Your task to perform on an android device: What's the latest video from GameSpot News? Image 0: 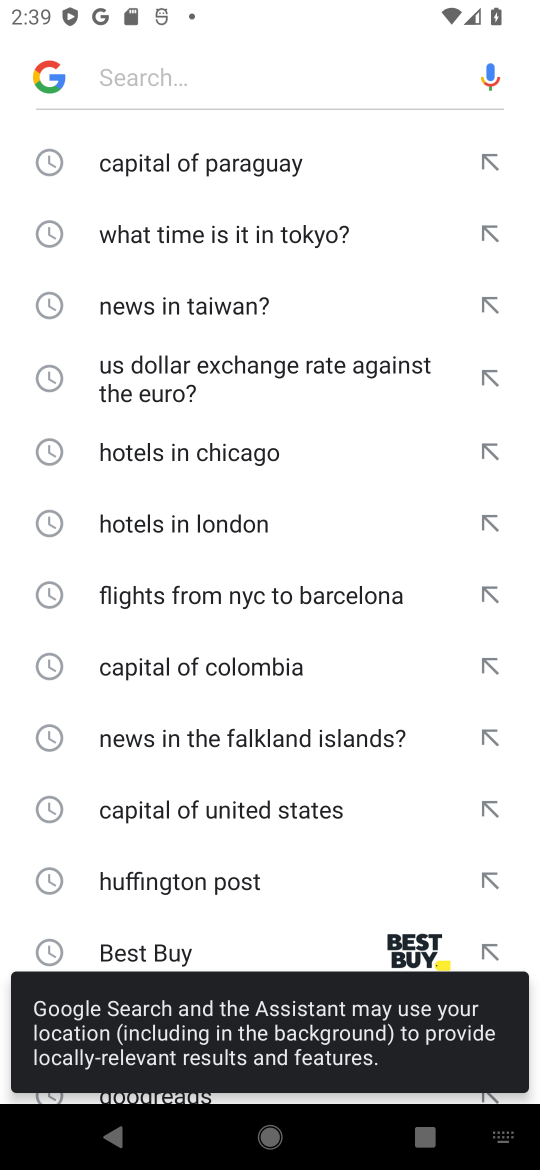
Step 0: press home button
Your task to perform on an android device: What's the latest video from GameSpot News? Image 1: 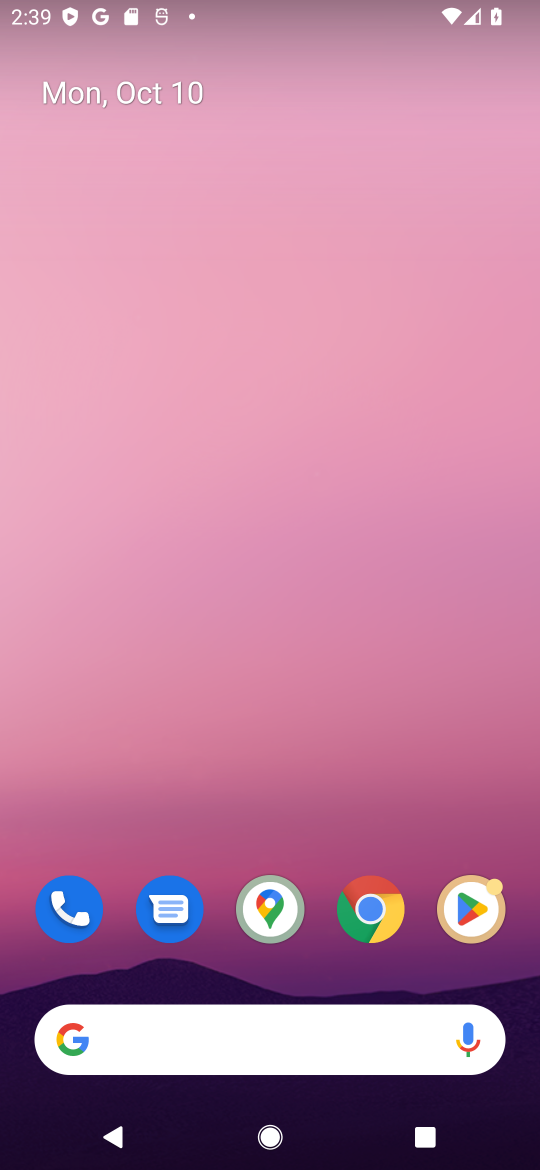
Step 1: click (370, 909)
Your task to perform on an android device: What's the latest video from GameSpot News? Image 2: 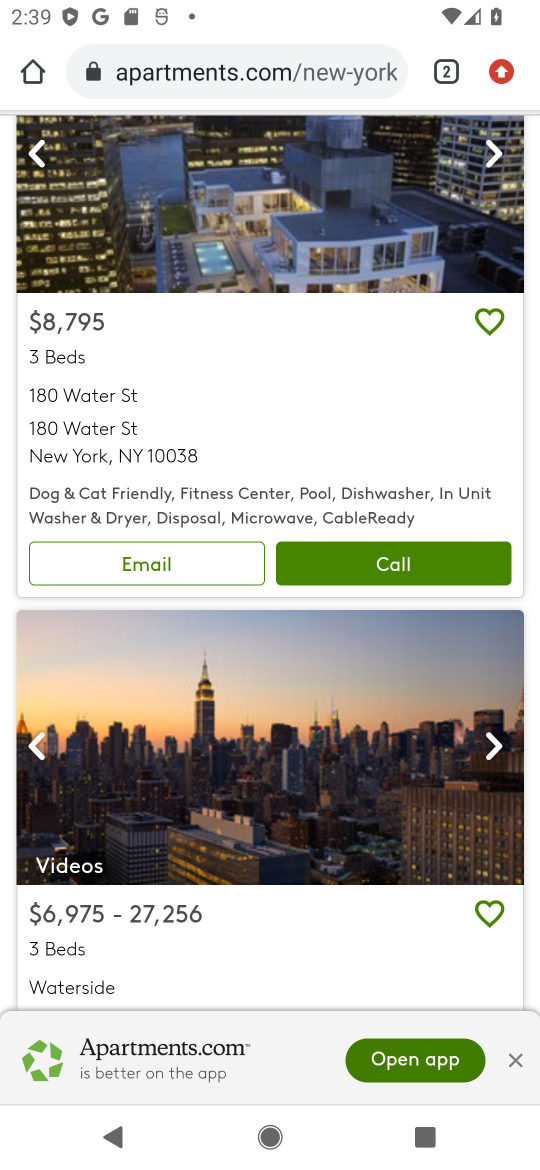
Step 2: click (251, 51)
Your task to perform on an android device: What's the latest video from GameSpot News? Image 3: 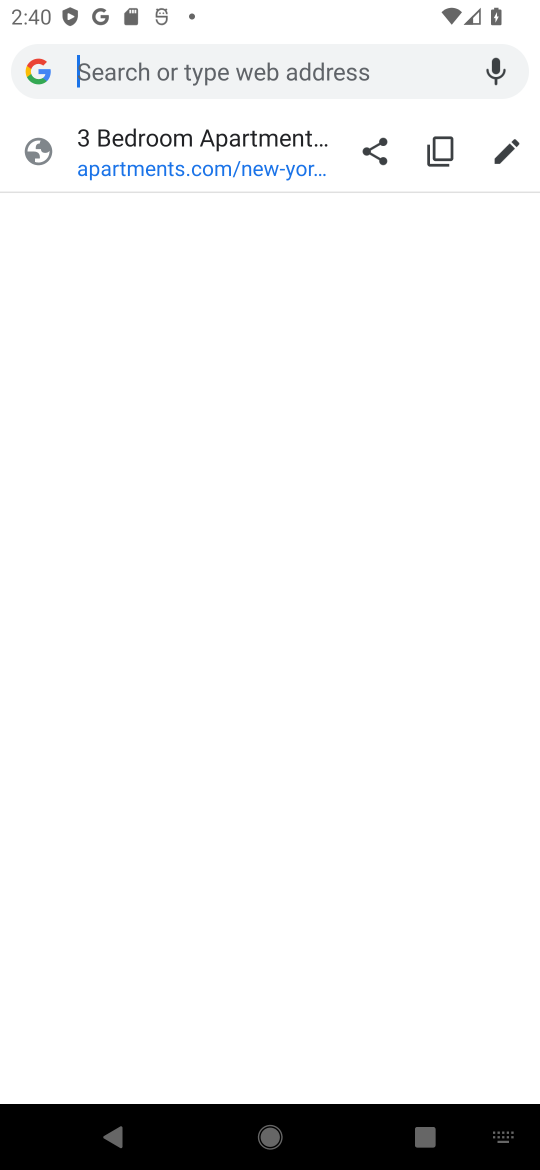
Step 3: type "What's the latest video from GameSpot News?"
Your task to perform on an android device: What's the latest video from GameSpot News? Image 4: 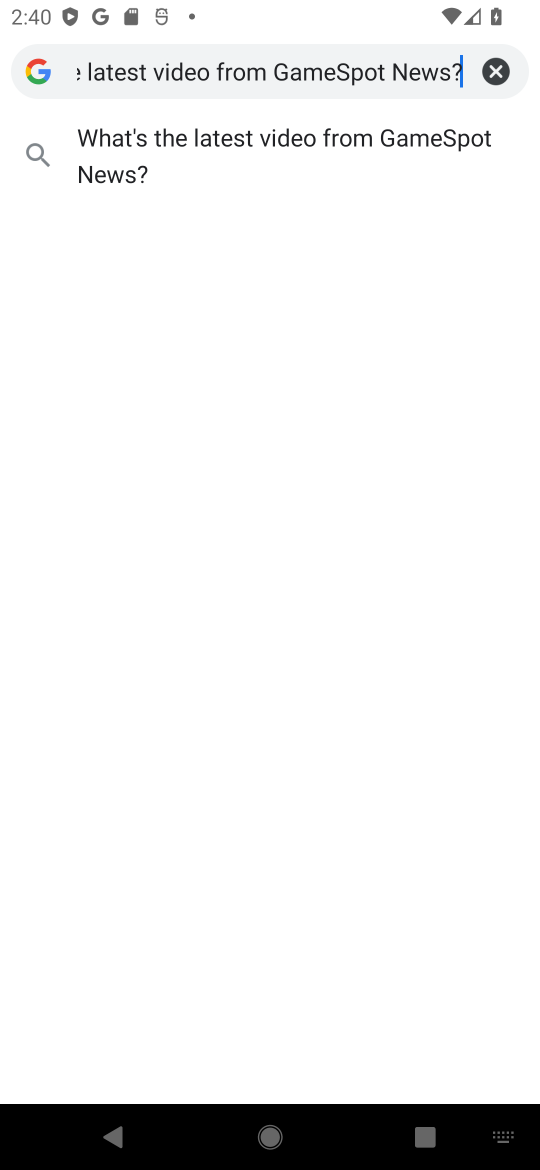
Step 4: click (128, 137)
Your task to perform on an android device: What's the latest video from GameSpot News? Image 5: 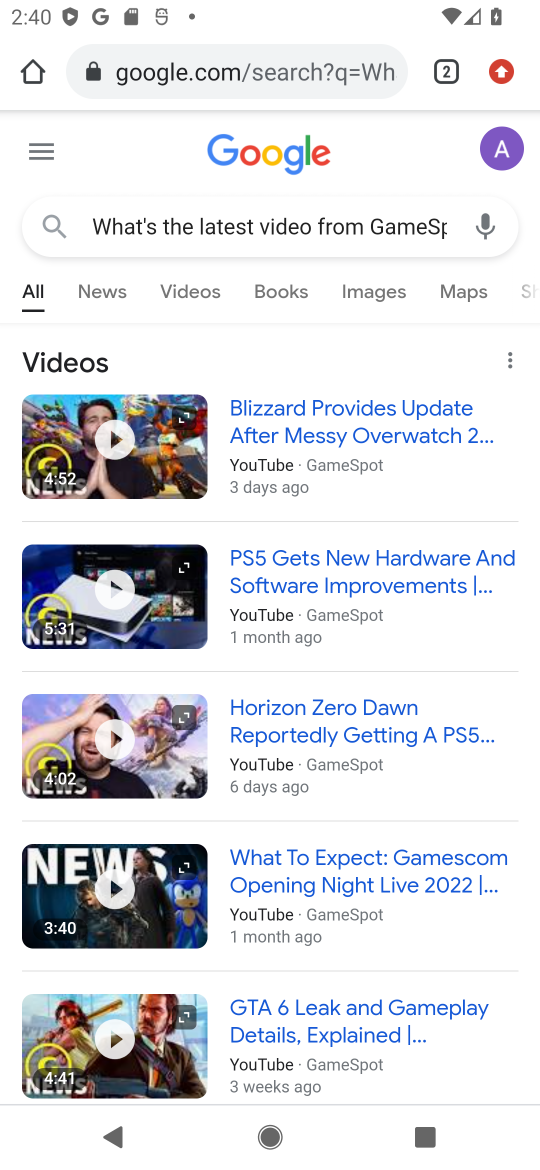
Step 5: click (283, 406)
Your task to perform on an android device: What's the latest video from GameSpot News? Image 6: 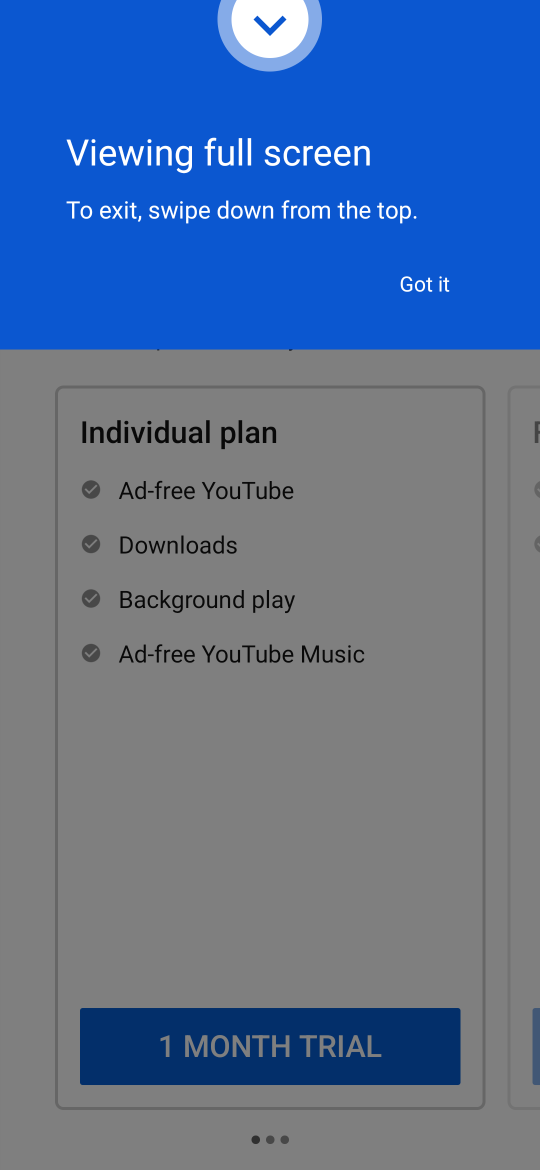
Step 6: click (423, 280)
Your task to perform on an android device: What's the latest video from GameSpot News? Image 7: 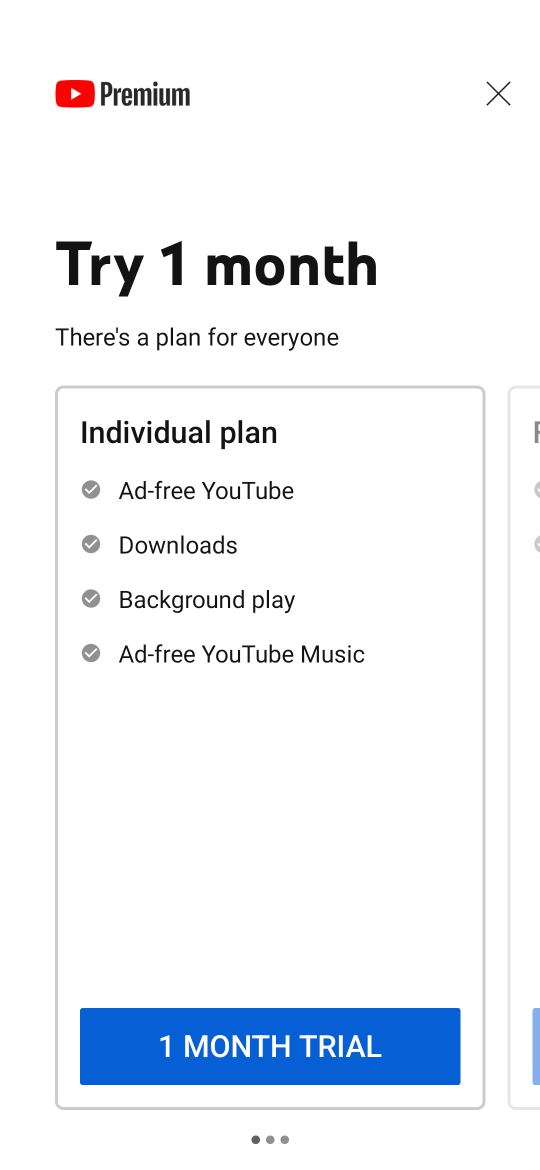
Step 7: click (497, 90)
Your task to perform on an android device: What's the latest video from GameSpot News? Image 8: 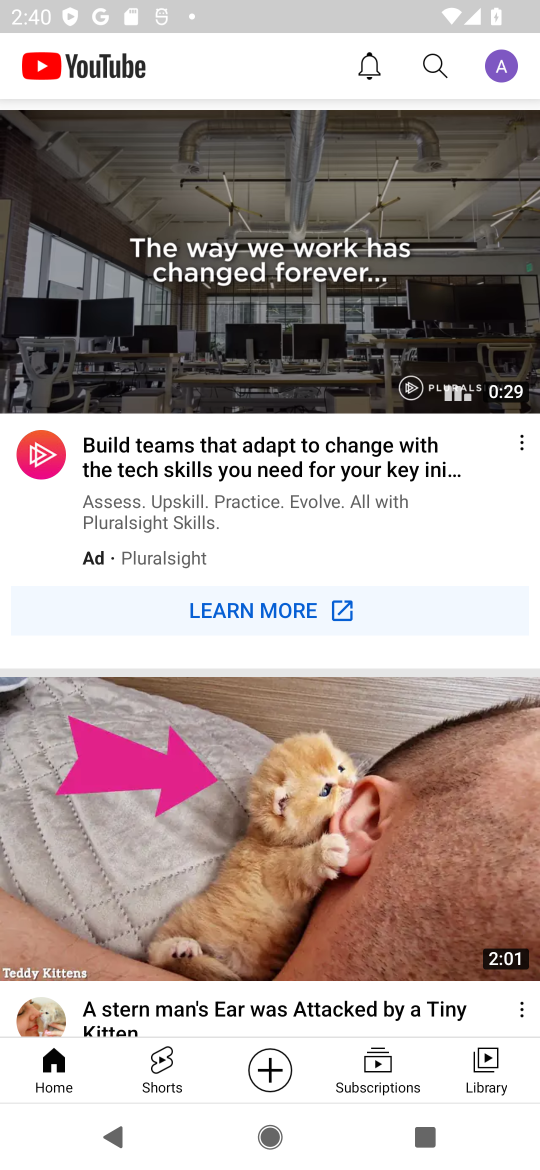
Step 8: drag from (410, 667) to (353, 243)
Your task to perform on an android device: What's the latest video from GameSpot News? Image 9: 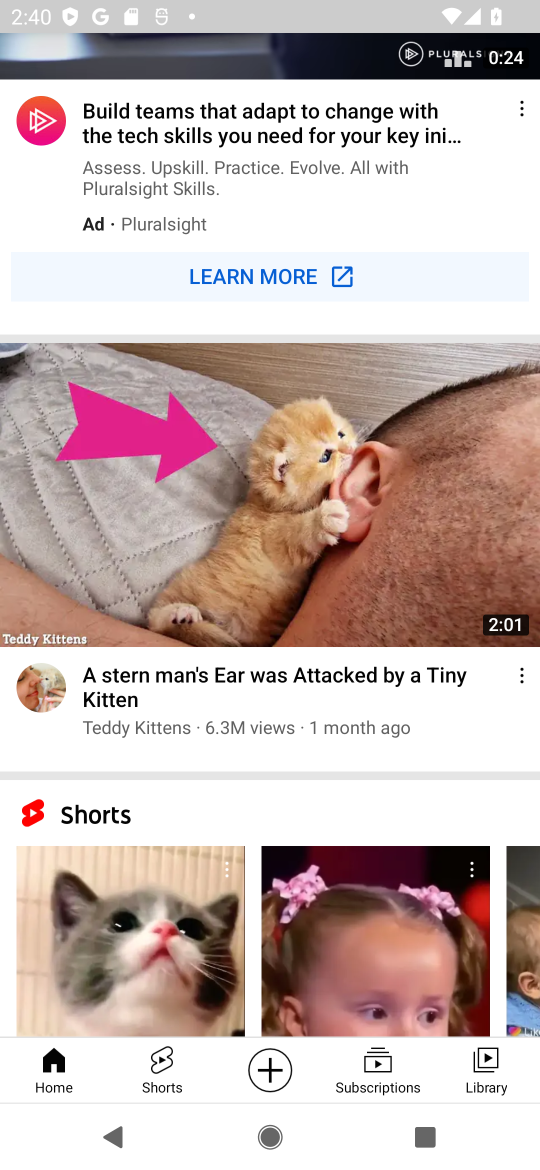
Step 9: drag from (406, 455) to (360, 870)
Your task to perform on an android device: What's the latest video from GameSpot News? Image 10: 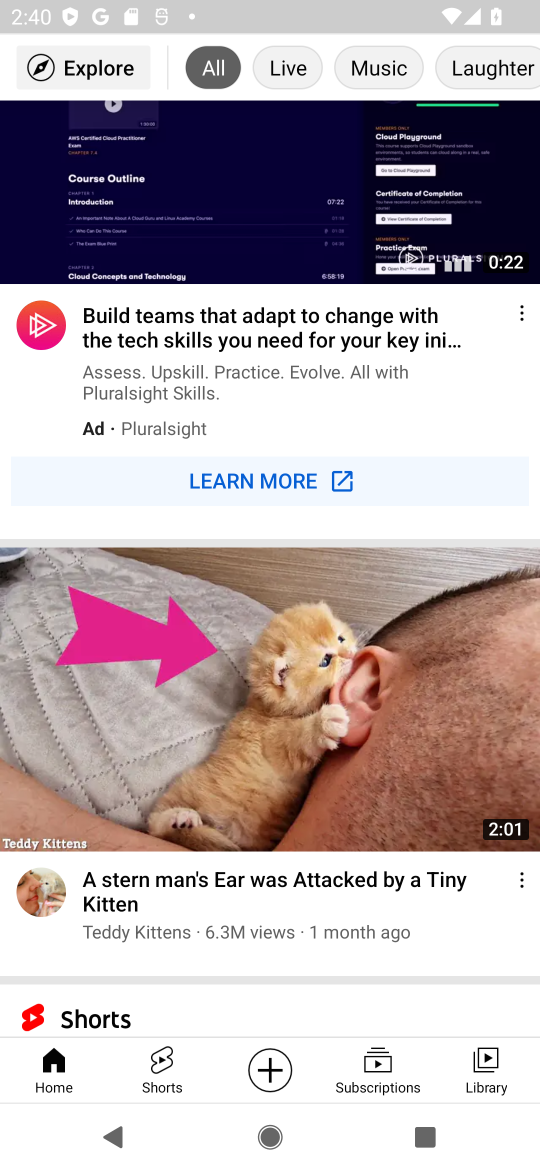
Step 10: drag from (389, 132) to (386, 586)
Your task to perform on an android device: What's the latest video from GameSpot News? Image 11: 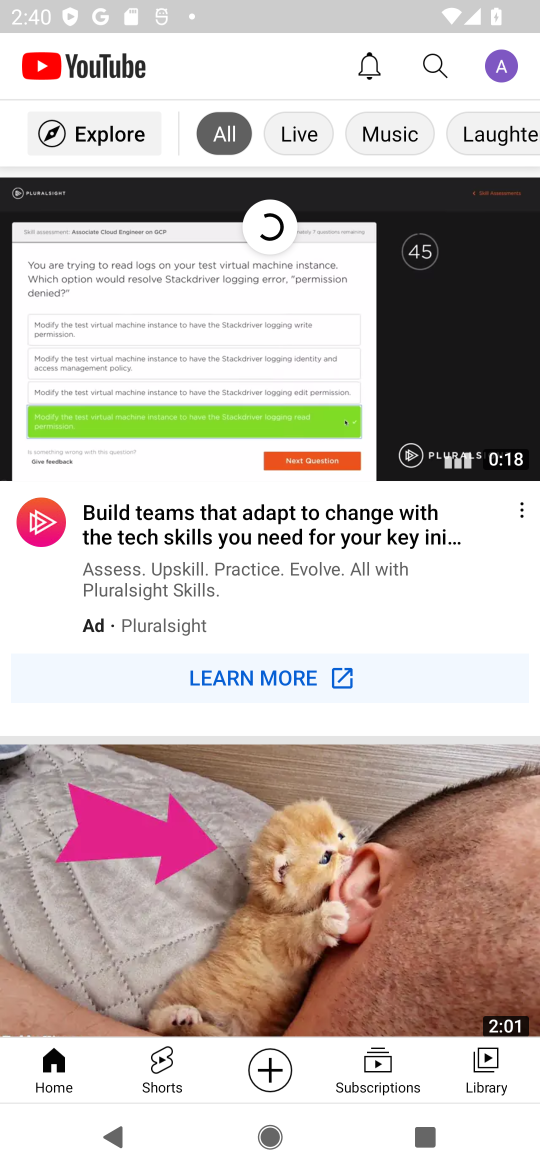
Step 11: click (423, 58)
Your task to perform on an android device: What's the latest video from GameSpot News? Image 12: 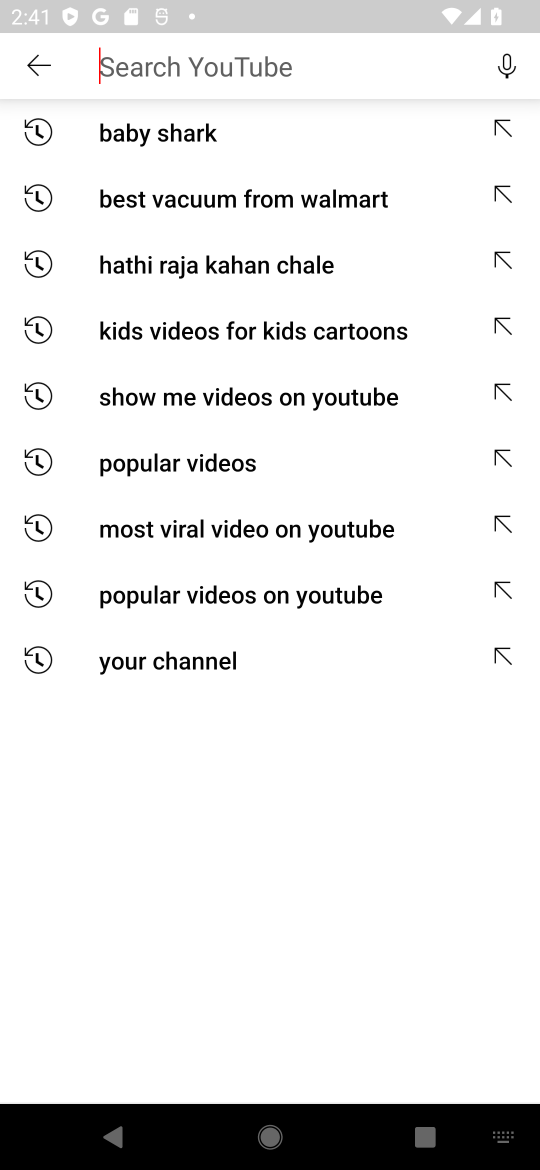
Step 12: type "GameSpot News?"
Your task to perform on an android device: What's the latest video from GameSpot News? Image 13: 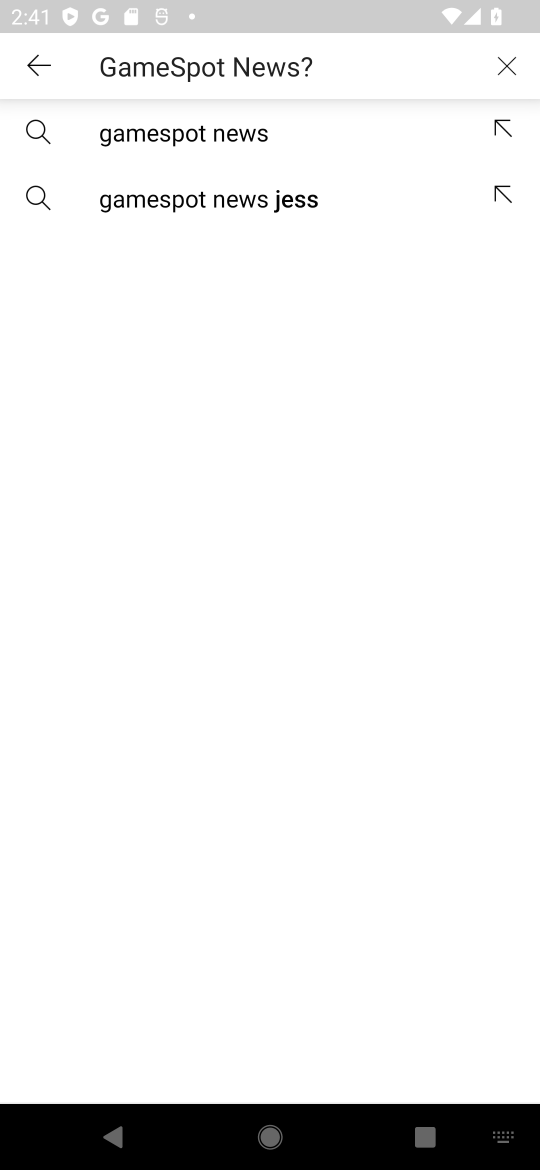
Step 13: click (163, 124)
Your task to perform on an android device: What's the latest video from GameSpot News? Image 14: 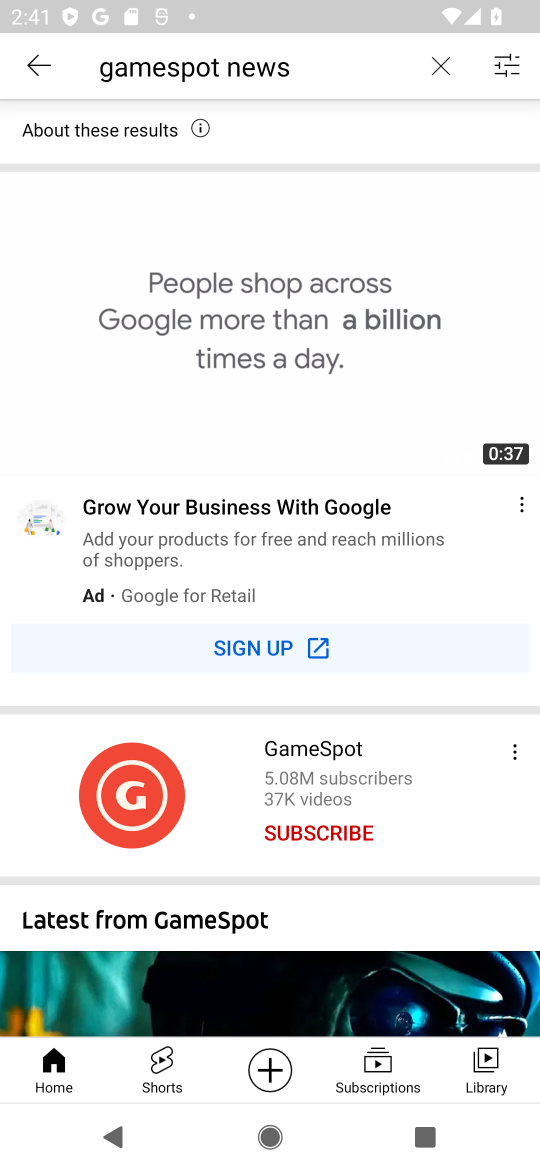
Step 14: click (283, 740)
Your task to perform on an android device: What's the latest video from GameSpot News? Image 15: 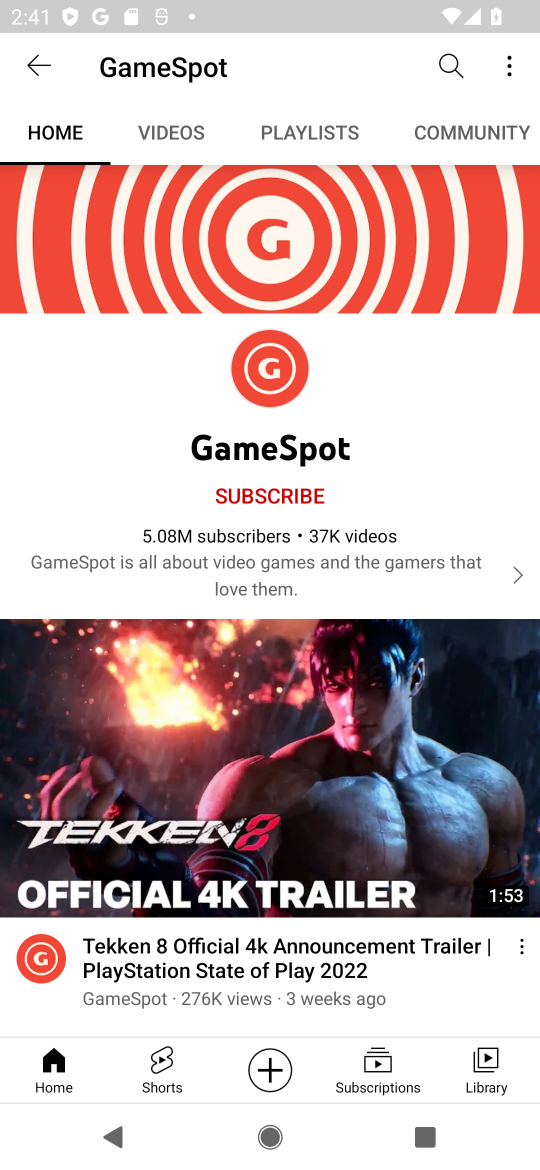
Step 15: click (162, 121)
Your task to perform on an android device: What's the latest video from GameSpot News? Image 16: 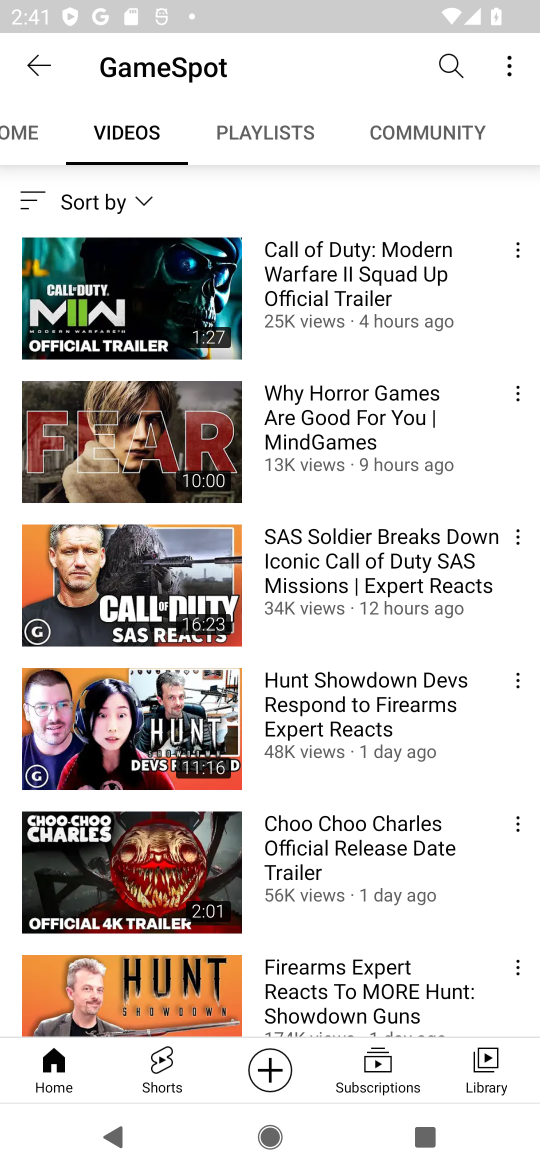
Step 16: click (142, 287)
Your task to perform on an android device: What's the latest video from GameSpot News? Image 17: 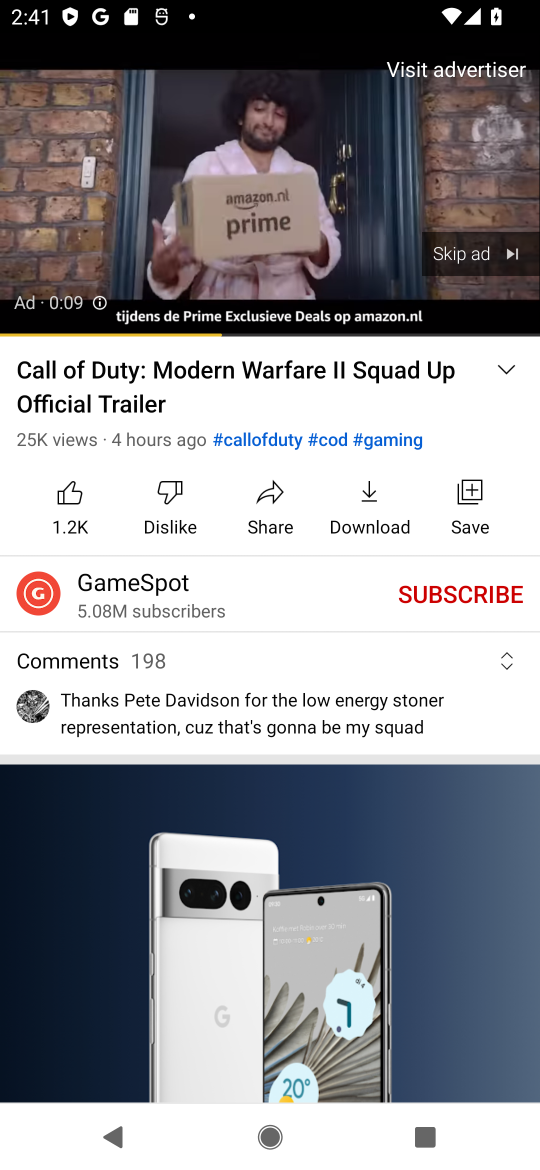
Step 17: click (480, 252)
Your task to perform on an android device: What's the latest video from GameSpot News? Image 18: 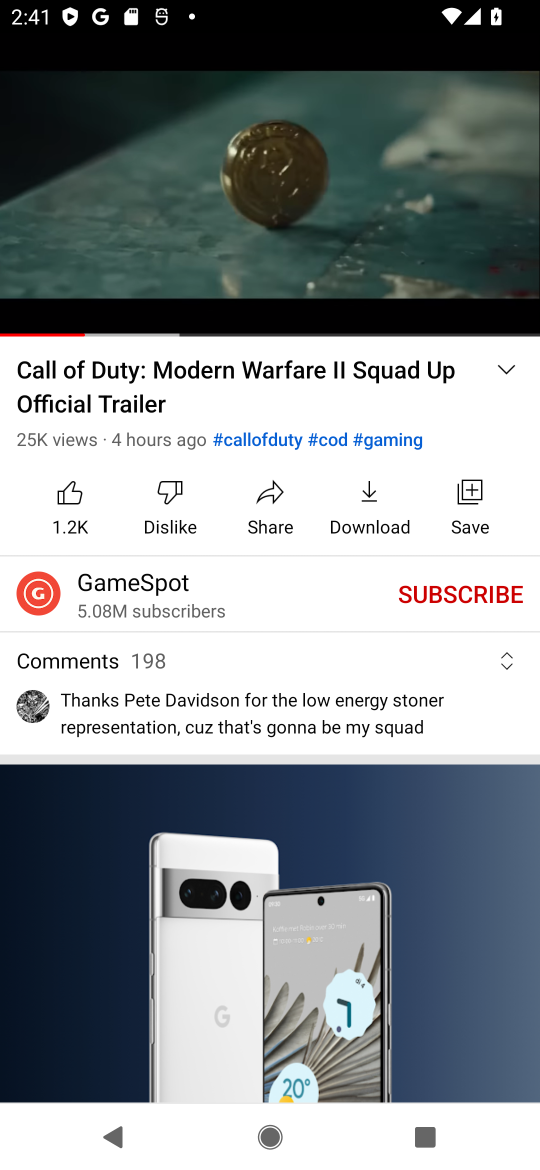
Step 18: click (279, 188)
Your task to perform on an android device: What's the latest video from GameSpot News? Image 19: 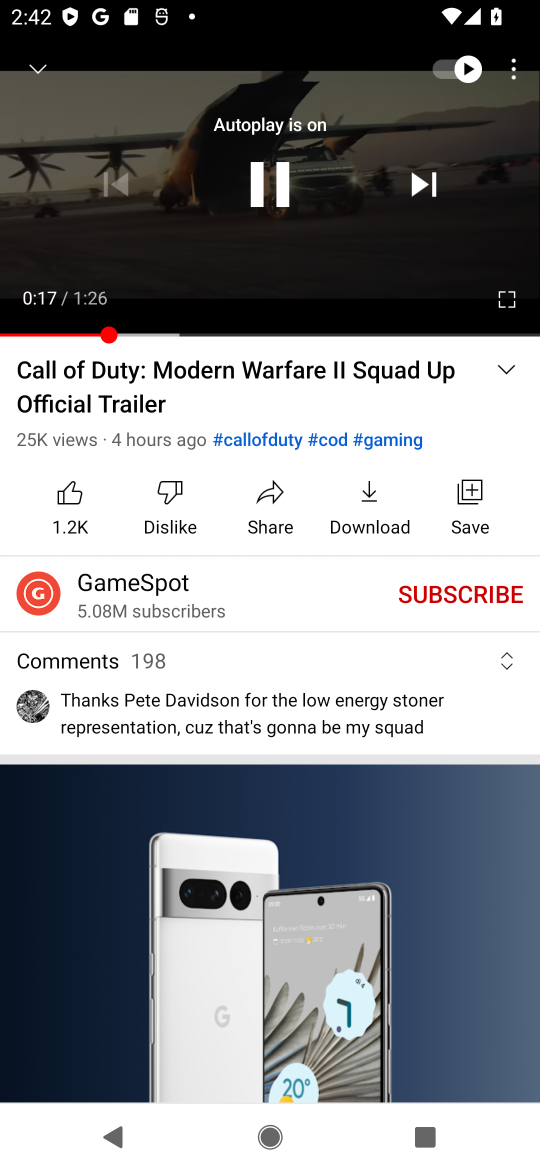
Step 19: click (279, 188)
Your task to perform on an android device: What's the latest video from GameSpot News? Image 20: 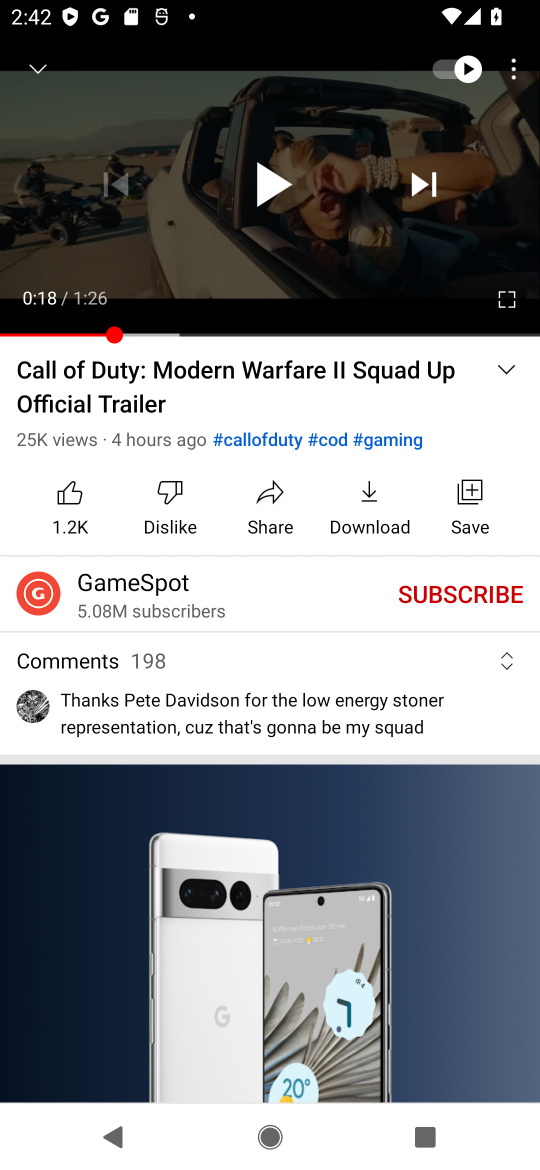
Step 20: task complete